Your task to perform on an android device: Go to Yahoo.com Image 0: 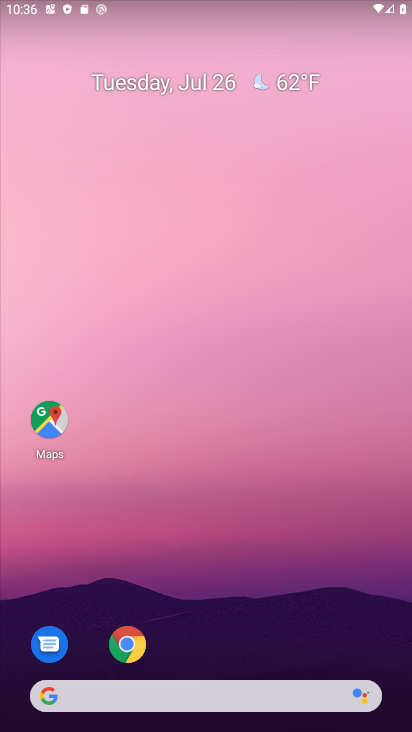
Step 0: click (131, 646)
Your task to perform on an android device: Go to Yahoo.com Image 1: 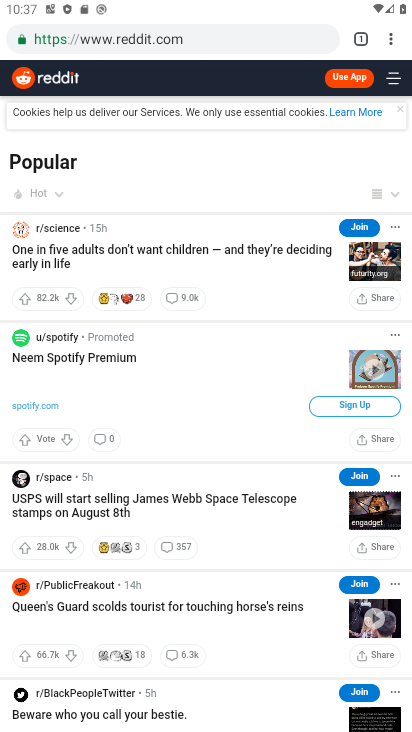
Step 1: click (149, 45)
Your task to perform on an android device: Go to Yahoo.com Image 2: 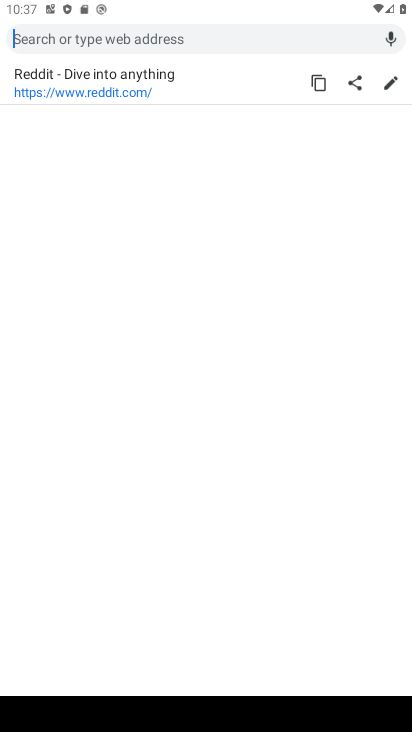
Step 2: type "yahoo.com"
Your task to perform on an android device: Go to Yahoo.com Image 3: 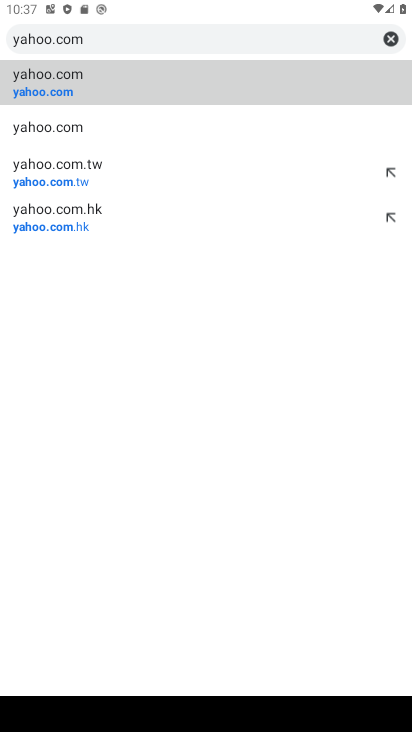
Step 3: click (60, 87)
Your task to perform on an android device: Go to Yahoo.com Image 4: 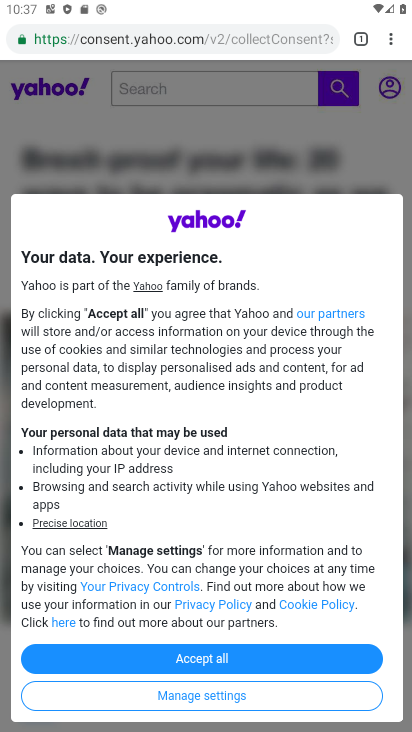
Step 4: task complete